Your task to perform on an android device: open device folders in google photos Image 0: 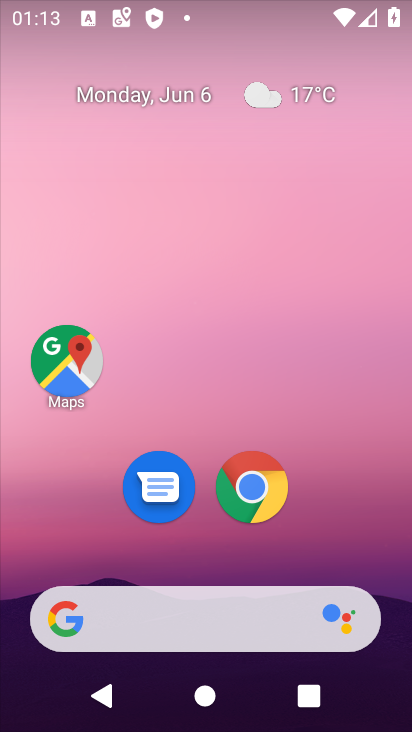
Step 0: drag from (394, 615) to (339, 99)
Your task to perform on an android device: open device folders in google photos Image 1: 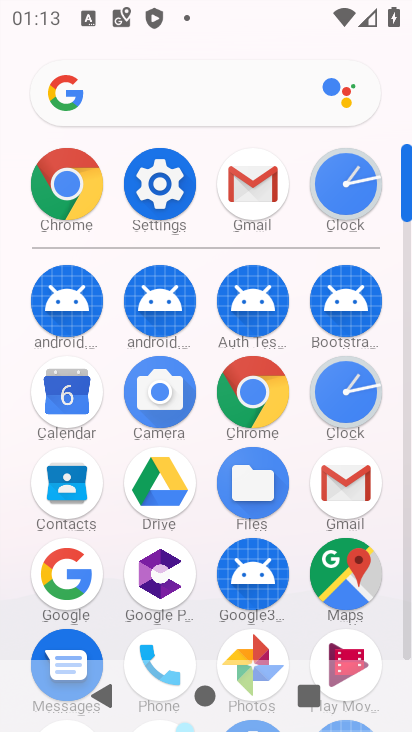
Step 1: click (407, 639)
Your task to perform on an android device: open device folders in google photos Image 2: 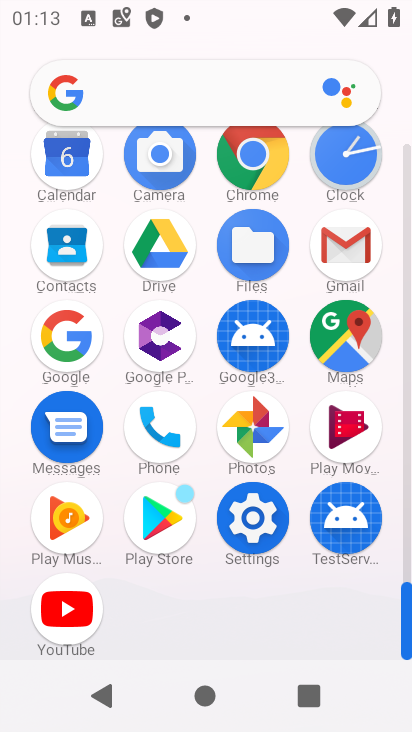
Step 2: click (254, 430)
Your task to perform on an android device: open device folders in google photos Image 3: 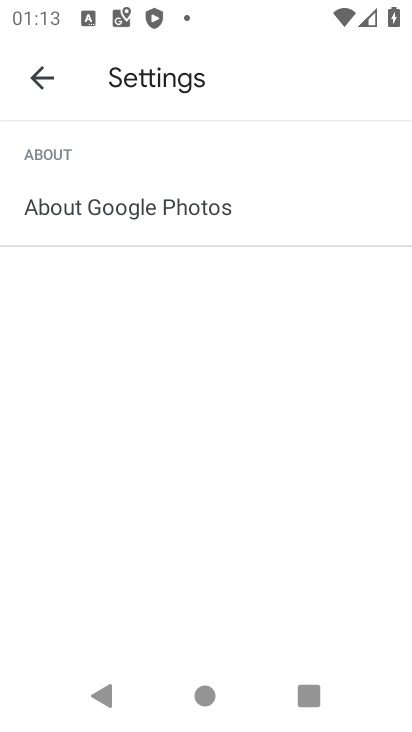
Step 3: press back button
Your task to perform on an android device: open device folders in google photos Image 4: 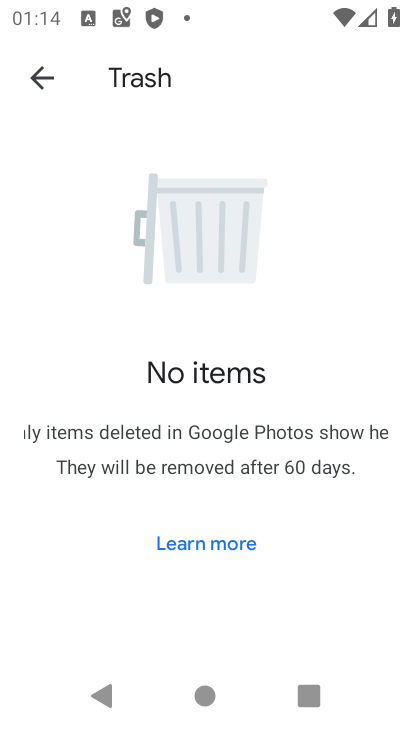
Step 4: press back button
Your task to perform on an android device: open device folders in google photos Image 5: 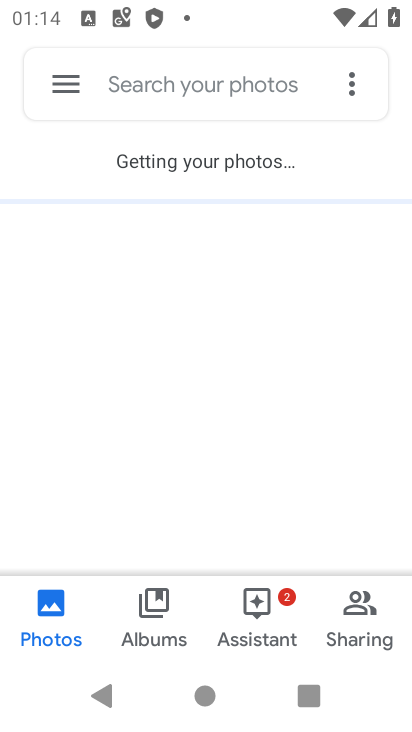
Step 5: click (66, 89)
Your task to perform on an android device: open device folders in google photos Image 6: 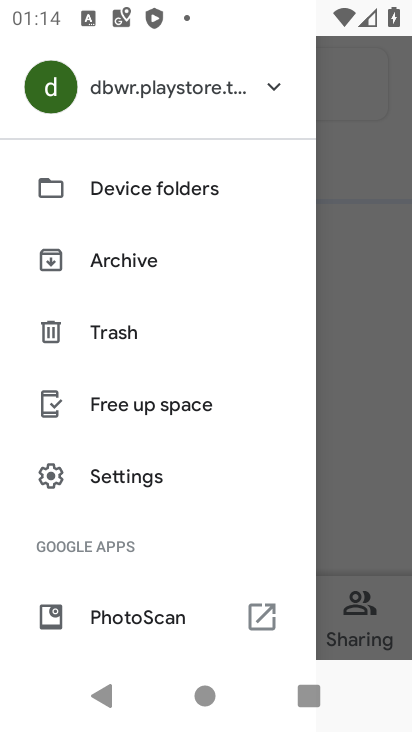
Step 6: click (152, 192)
Your task to perform on an android device: open device folders in google photos Image 7: 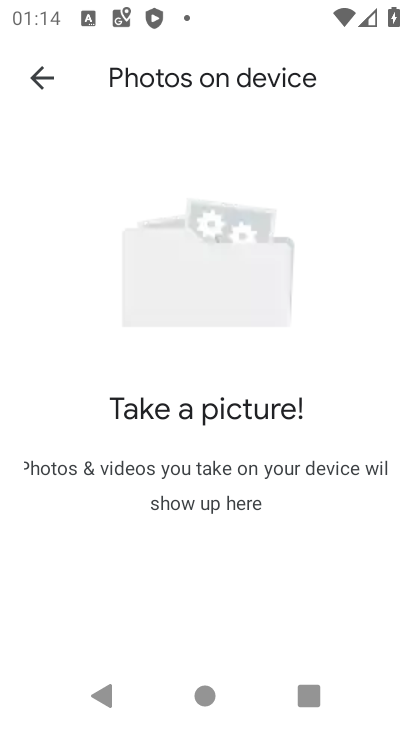
Step 7: task complete